Your task to perform on an android device: Open Google Chrome and open the bookmarks view Image 0: 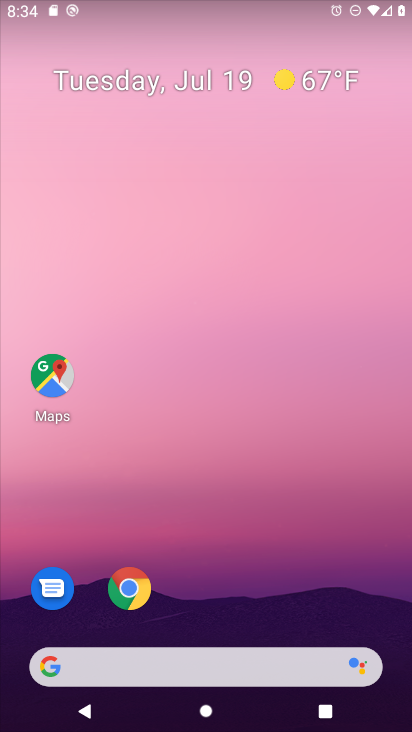
Step 0: drag from (345, 556) to (374, 129)
Your task to perform on an android device: Open Google Chrome and open the bookmarks view Image 1: 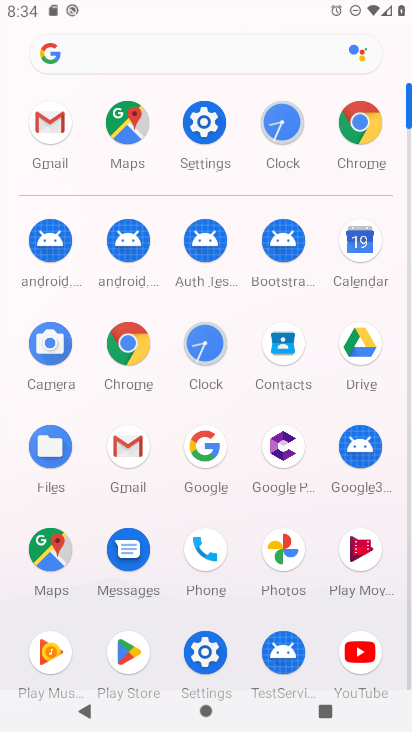
Step 1: click (134, 345)
Your task to perform on an android device: Open Google Chrome and open the bookmarks view Image 2: 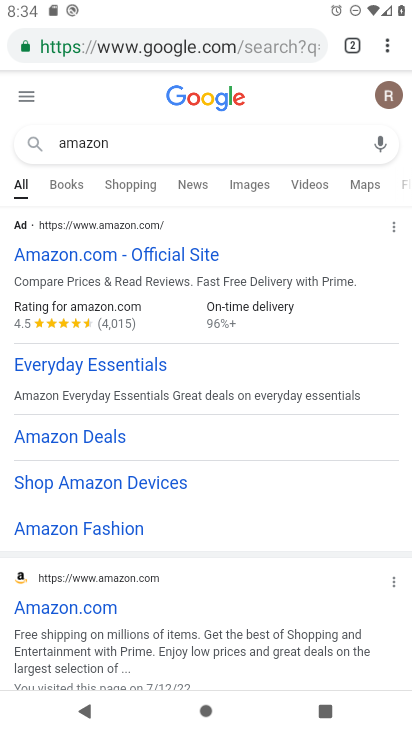
Step 2: click (387, 49)
Your task to perform on an android device: Open Google Chrome and open the bookmarks view Image 3: 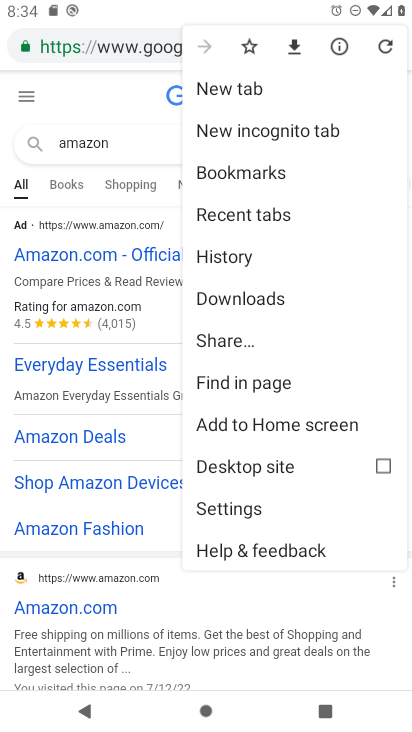
Step 3: click (293, 177)
Your task to perform on an android device: Open Google Chrome and open the bookmarks view Image 4: 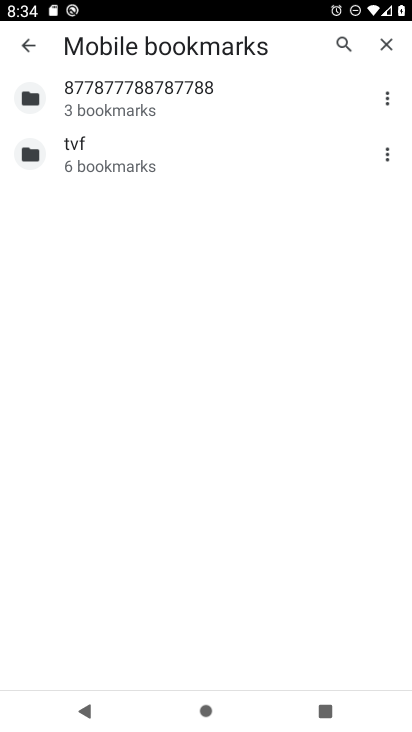
Step 4: click (143, 159)
Your task to perform on an android device: Open Google Chrome and open the bookmarks view Image 5: 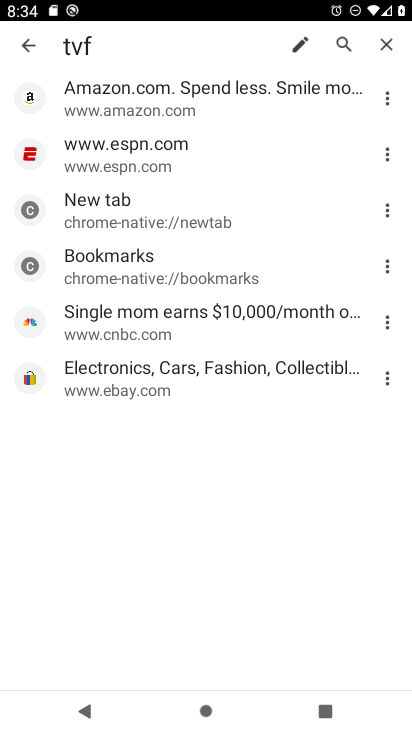
Step 5: click (129, 162)
Your task to perform on an android device: Open Google Chrome and open the bookmarks view Image 6: 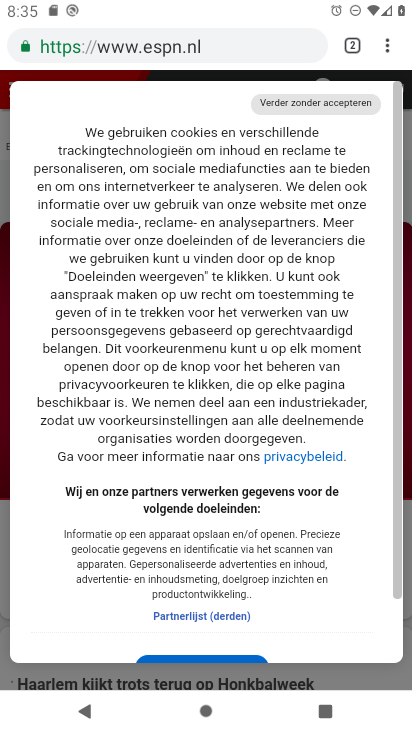
Step 6: task complete